Your task to perform on an android device: Search for pizza restaurants on Maps Image 0: 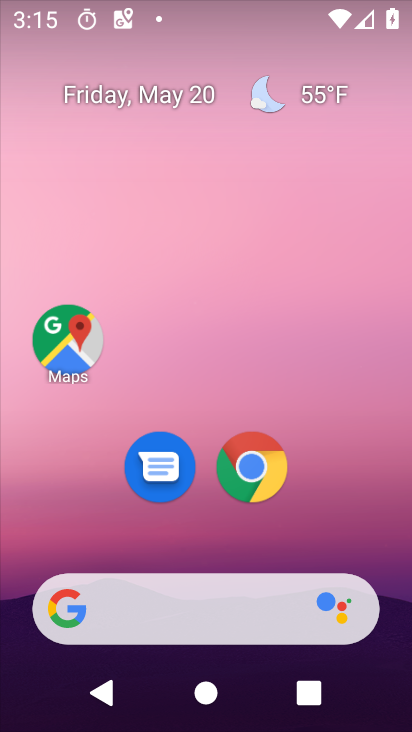
Step 0: click (65, 345)
Your task to perform on an android device: Search for pizza restaurants on Maps Image 1: 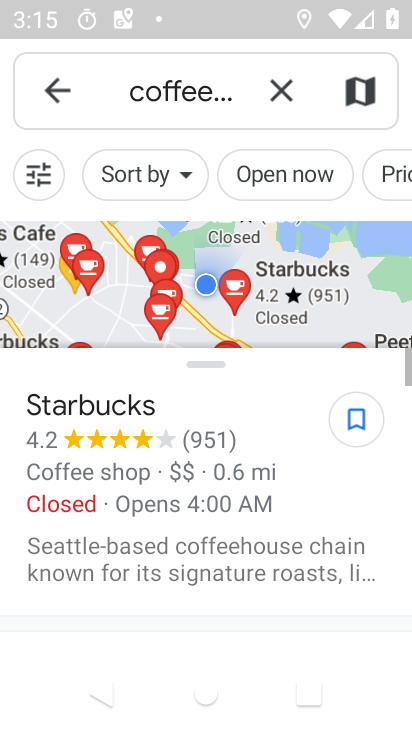
Step 1: click (280, 83)
Your task to perform on an android device: Search for pizza restaurants on Maps Image 2: 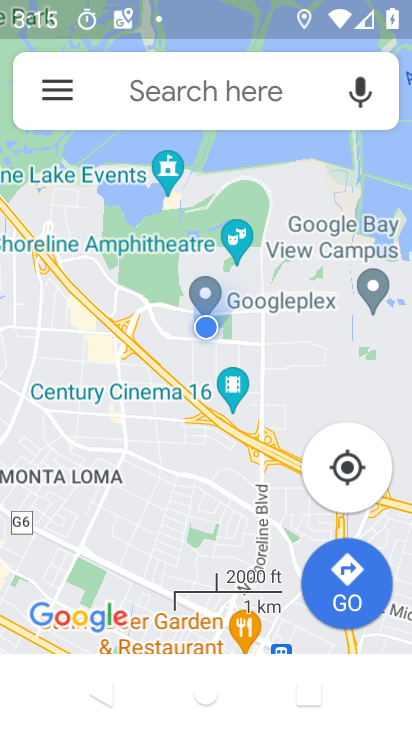
Step 2: click (186, 86)
Your task to perform on an android device: Search for pizza restaurants on Maps Image 3: 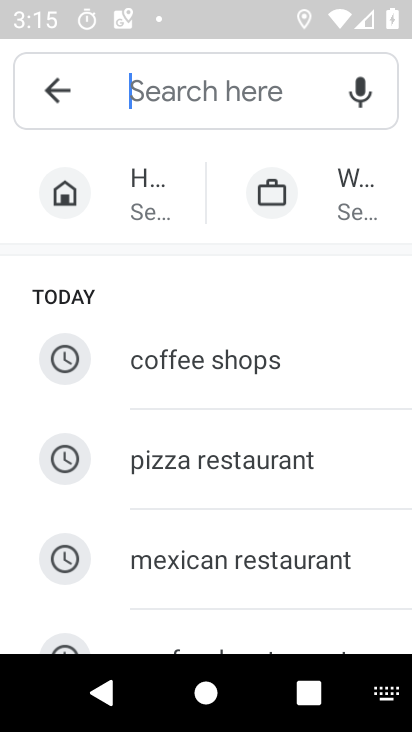
Step 3: type "pizza restaurant"
Your task to perform on an android device: Search for pizza restaurants on Maps Image 4: 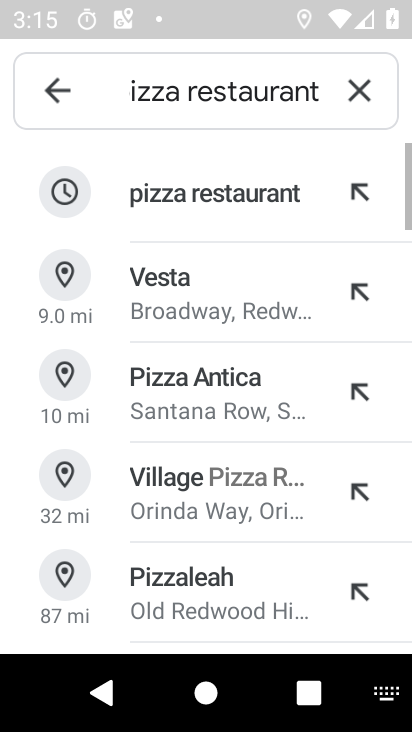
Step 4: click (180, 199)
Your task to perform on an android device: Search for pizza restaurants on Maps Image 5: 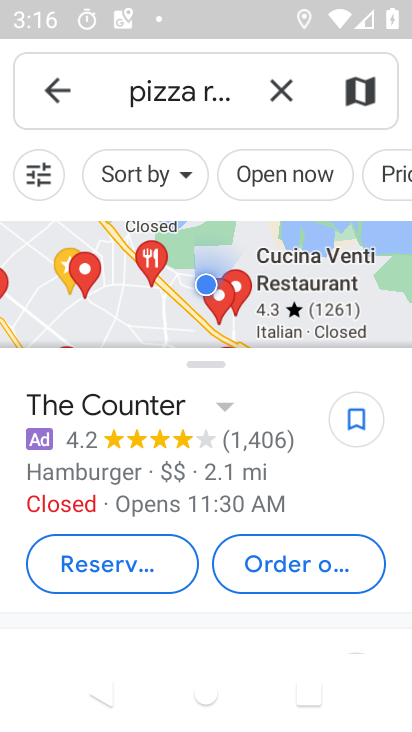
Step 5: task complete